Your task to perform on an android device: What's the weather today? Image 0: 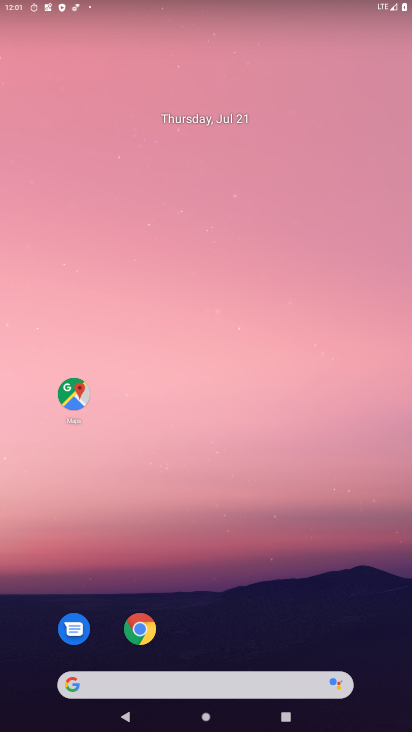
Step 0: drag from (229, 696) to (243, 13)
Your task to perform on an android device: What's the weather today? Image 1: 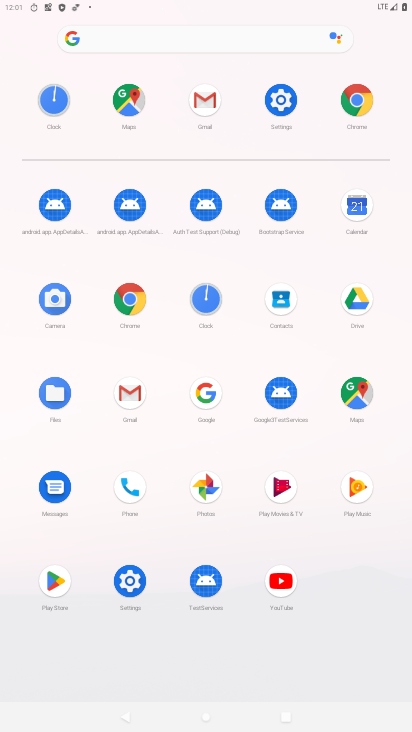
Step 1: click (139, 297)
Your task to perform on an android device: What's the weather today? Image 2: 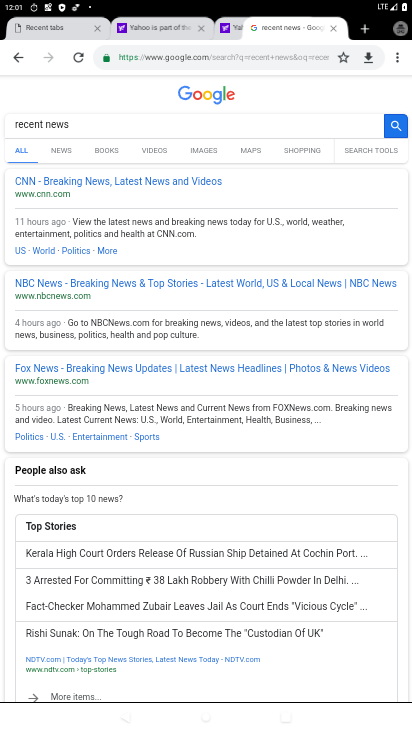
Step 2: click (177, 56)
Your task to perform on an android device: What's the weather today? Image 3: 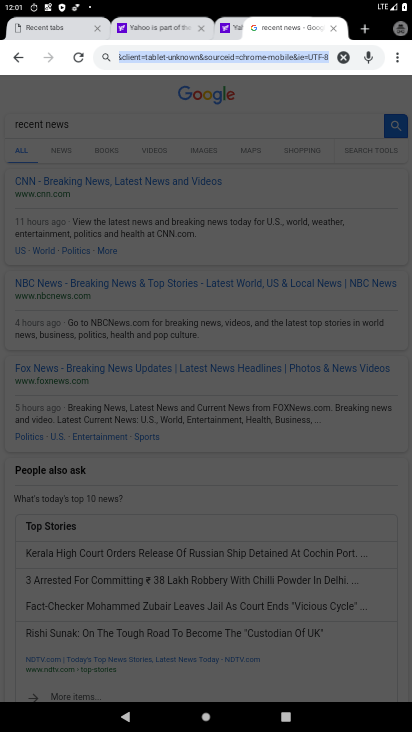
Step 3: type "weather today"
Your task to perform on an android device: What's the weather today? Image 4: 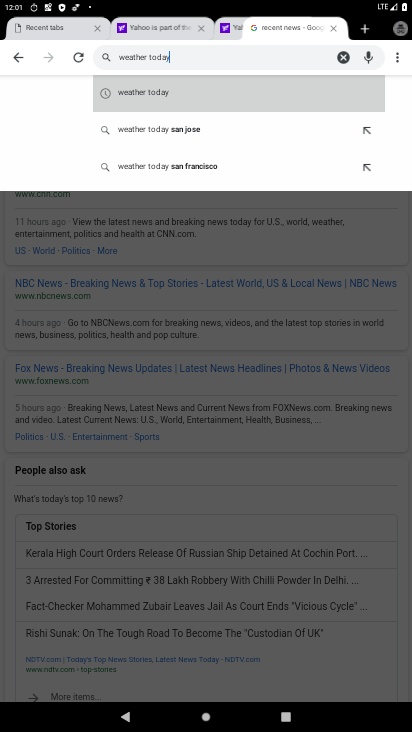
Step 4: click (174, 90)
Your task to perform on an android device: What's the weather today? Image 5: 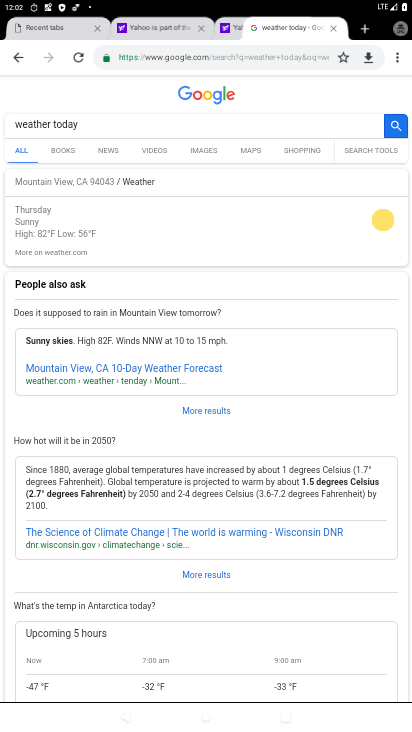
Step 5: task complete